Your task to perform on an android device: Open display settings Image 0: 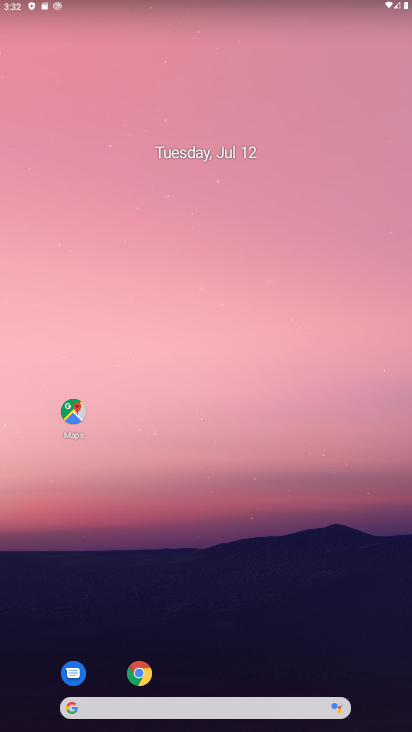
Step 0: drag from (200, 707) to (237, 230)
Your task to perform on an android device: Open display settings Image 1: 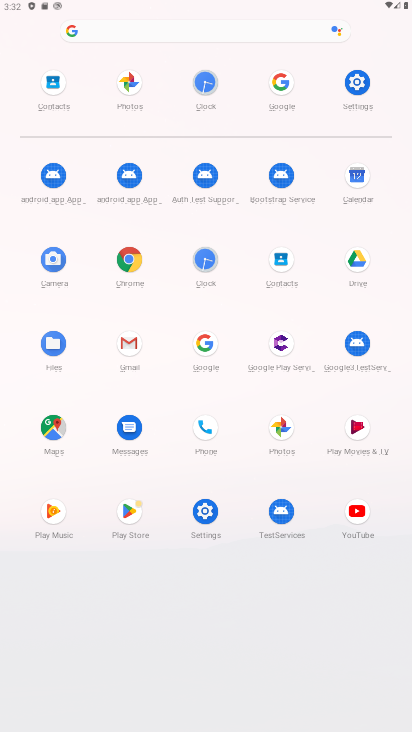
Step 1: click (356, 82)
Your task to perform on an android device: Open display settings Image 2: 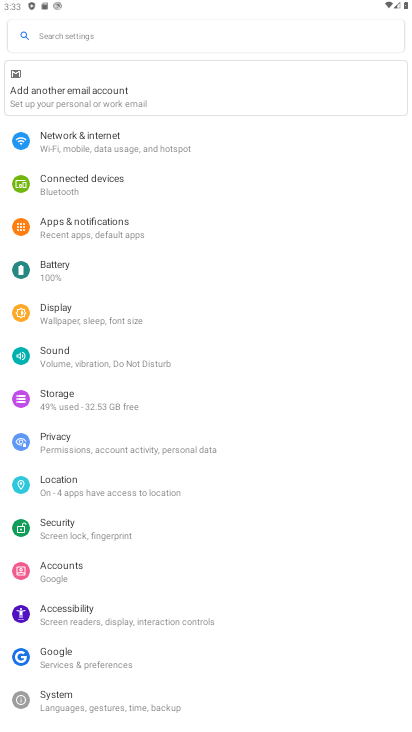
Step 2: click (66, 312)
Your task to perform on an android device: Open display settings Image 3: 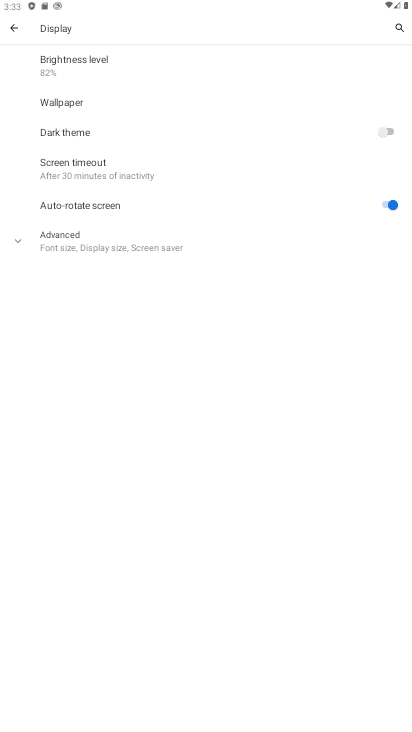
Step 3: task complete